Your task to perform on an android device: Open Google Image 0: 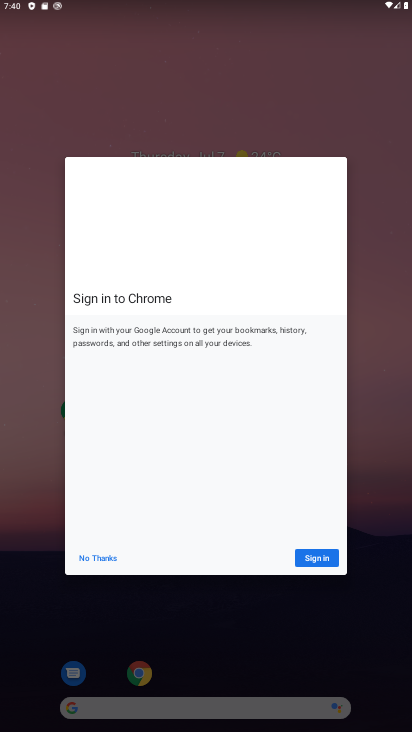
Step 0: click (105, 551)
Your task to perform on an android device: Open Google Image 1: 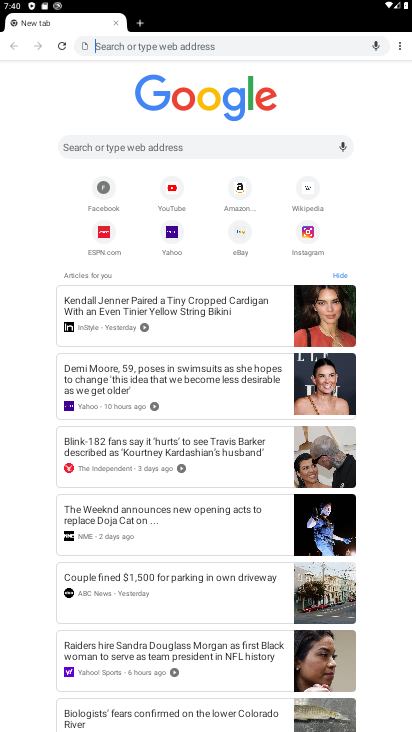
Step 1: task complete